Your task to perform on an android device: turn off translation in the chrome app Image 0: 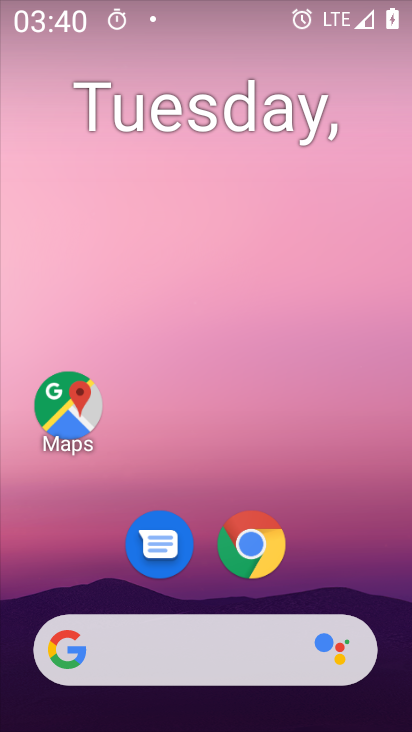
Step 0: drag from (355, 543) to (216, 17)
Your task to perform on an android device: turn off translation in the chrome app Image 1: 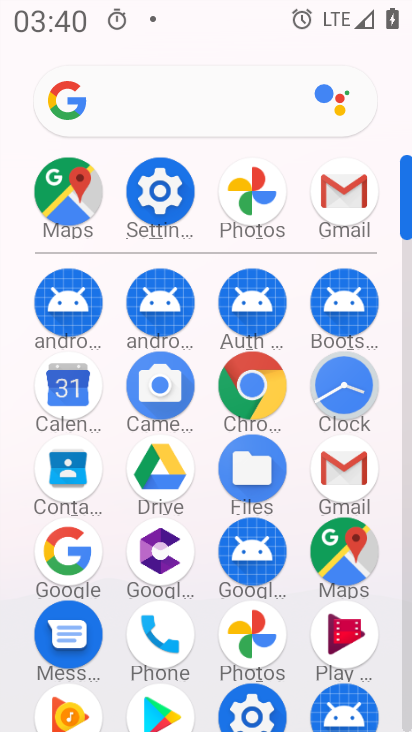
Step 1: drag from (10, 599) to (1, 198)
Your task to perform on an android device: turn off translation in the chrome app Image 2: 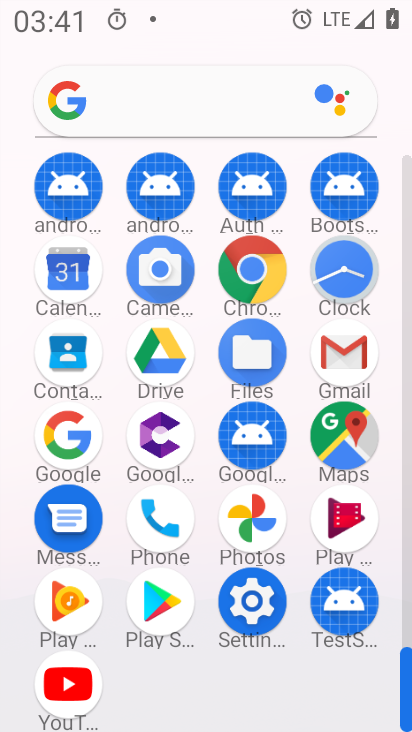
Step 2: click (247, 263)
Your task to perform on an android device: turn off translation in the chrome app Image 3: 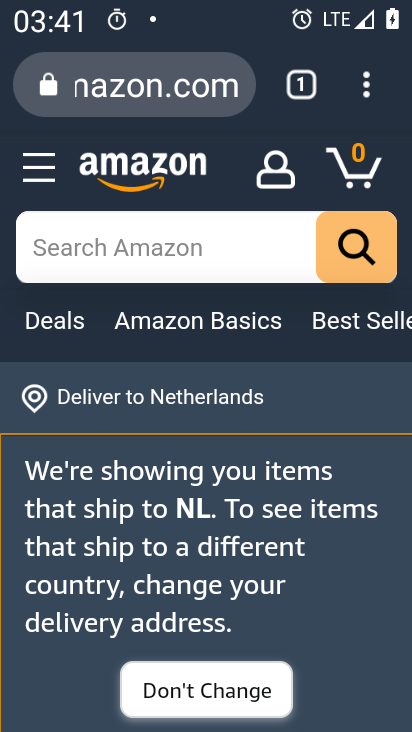
Step 3: drag from (362, 87) to (175, 574)
Your task to perform on an android device: turn off translation in the chrome app Image 4: 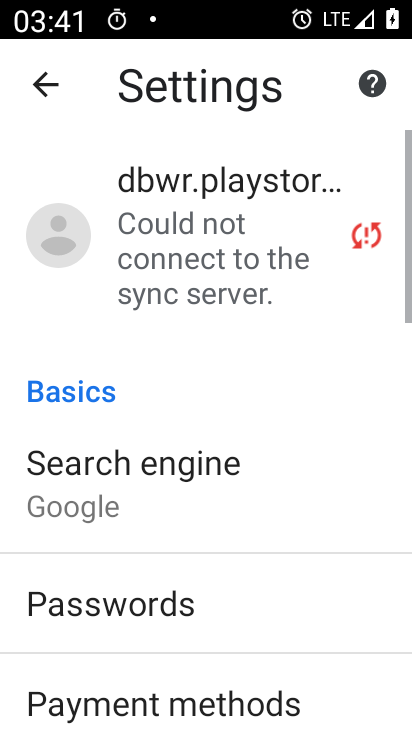
Step 4: drag from (283, 569) to (285, 139)
Your task to perform on an android device: turn off translation in the chrome app Image 5: 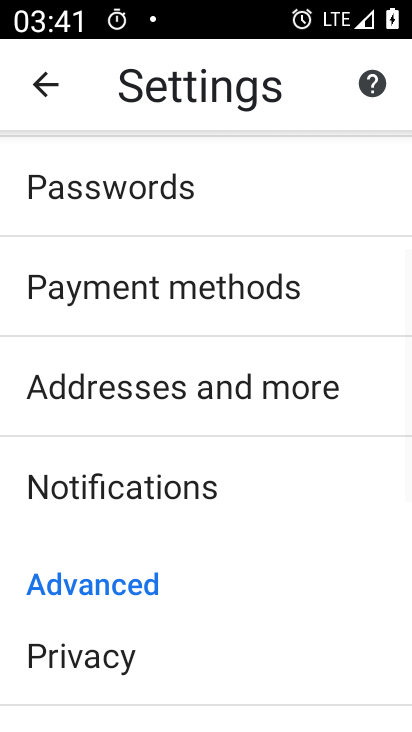
Step 5: drag from (249, 579) to (231, 168)
Your task to perform on an android device: turn off translation in the chrome app Image 6: 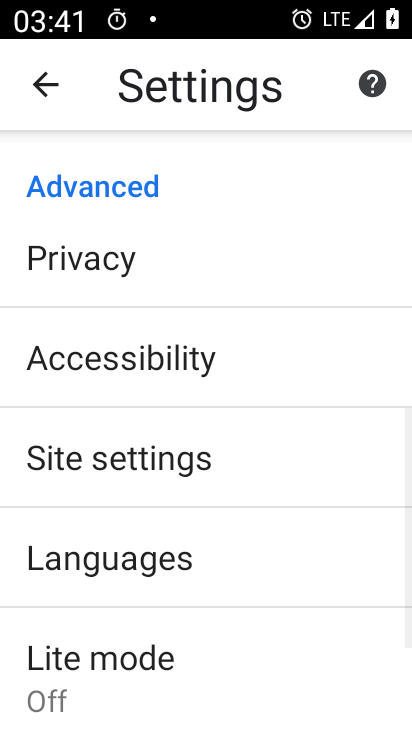
Step 6: drag from (239, 632) to (251, 274)
Your task to perform on an android device: turn off translation in the chrome app Image 7: 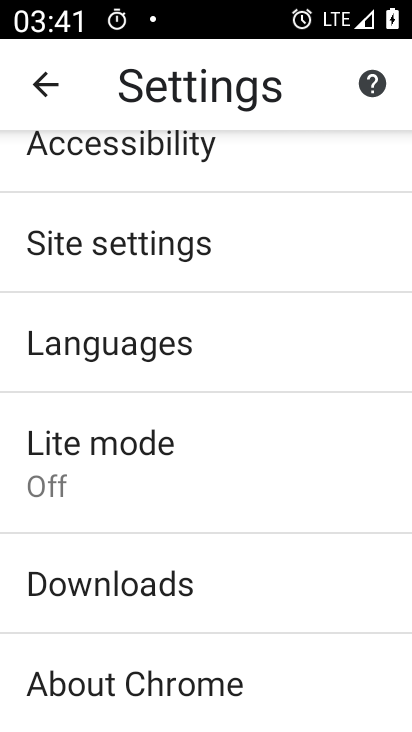
Step 7: click (227, 346)
Your task to perform on an android device: turn off translation in the chrome app Image 8: 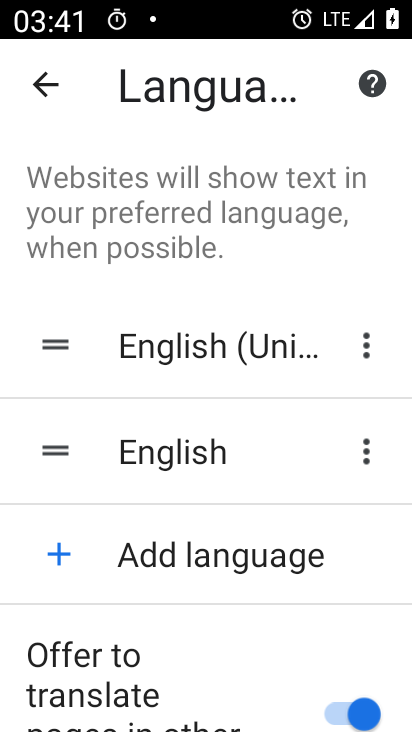
Step 8: drag from (215, 630) to (240, 327)
Your task to perform on an android device: turn off translation in the chrome app Image 9: 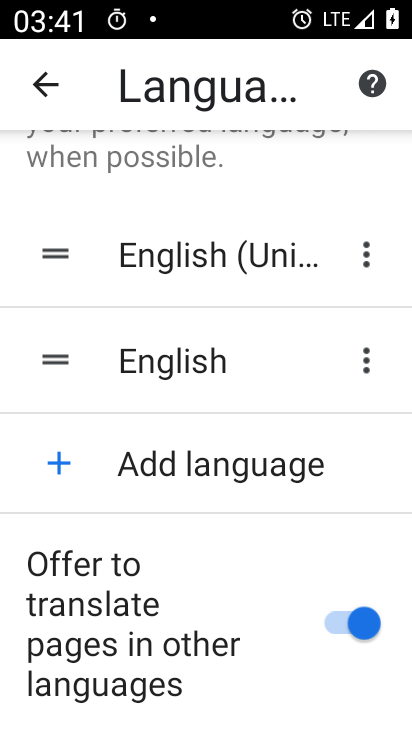
Step 9: click (347, 620)
Your task to perform on an android device: turn off translation in the chrome app Image 10: 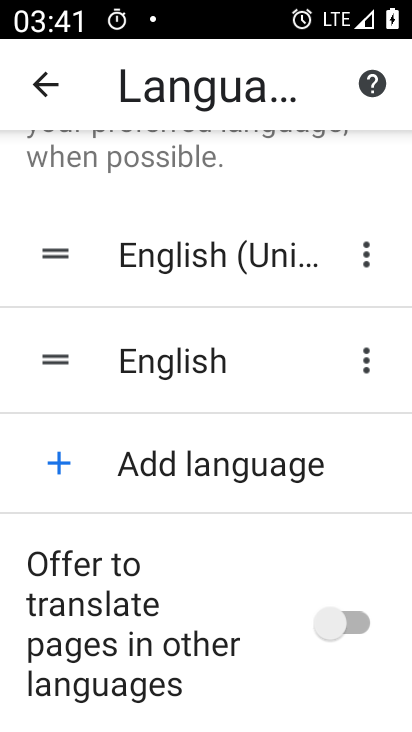
Step 10: task complete